Your task to perform on an android device: check the backup settings in the google photos Image 0: 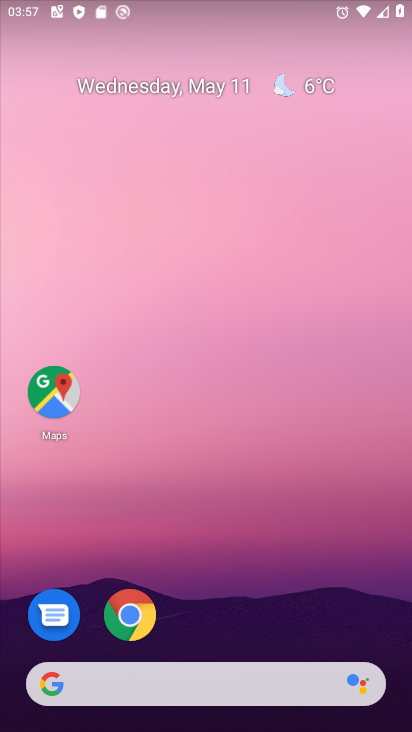
Step 0: drag from (324, 592) to (285, 78)
Your task to perform on an android device: check the backup settings in the google photos Image 1: 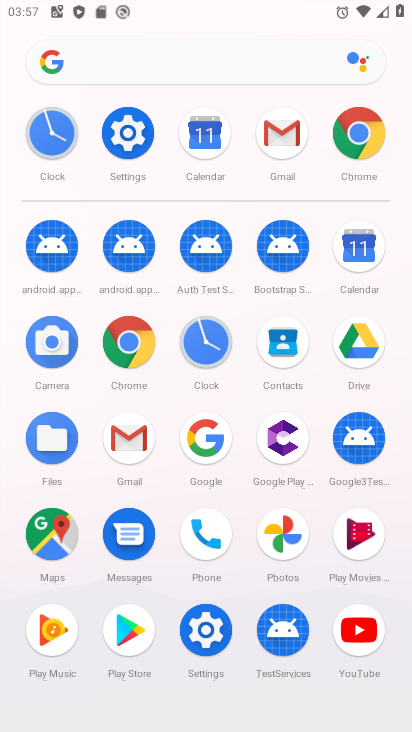
Step 1: click (272, 535)
Your task to perform on an android device: check the backup settings in the google photos Image 2: 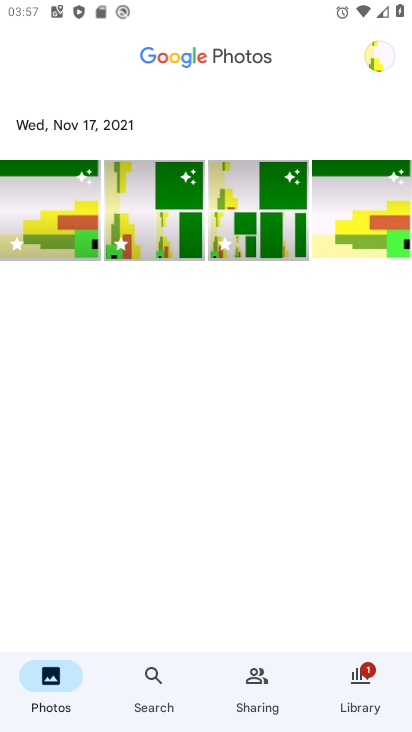
Step 2: click (365, 59)
Your task to perform on an android device: check the backup settings in the google photos Image 3: 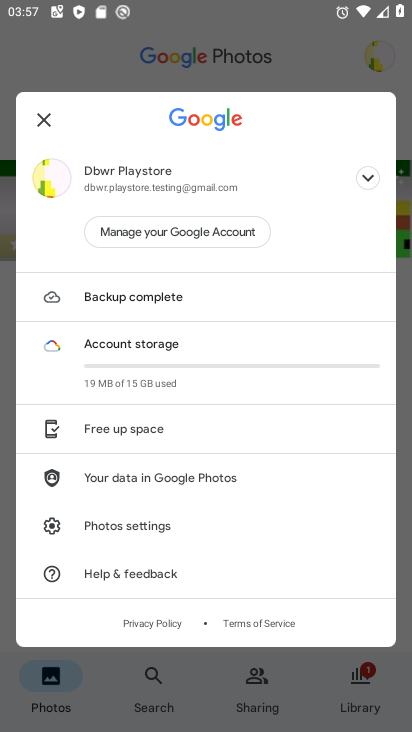
Step 3: click (138, 521)
Your task to perform on an android device: check the backup settings in the google photos Image 4: 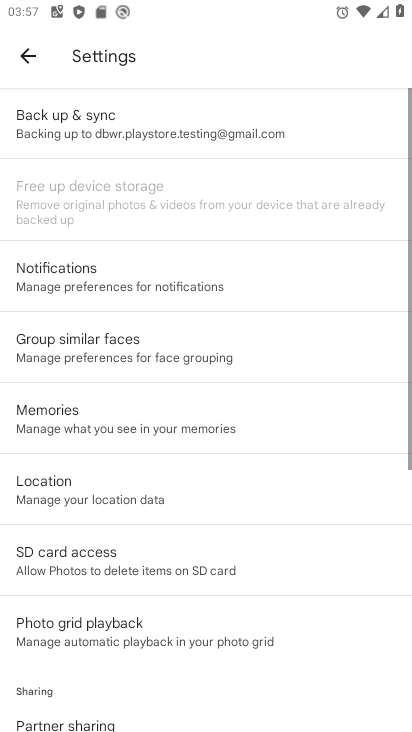
Step 4: click (201, 126)
Your task to perform on an android device: check the backup settings in the google photos Image 5: 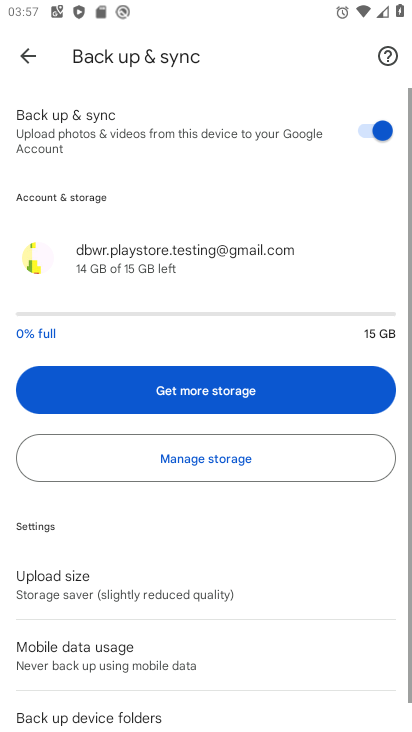
Step 5: task complete